Your task to perform on an android device: When is my next appointment? Image 0: 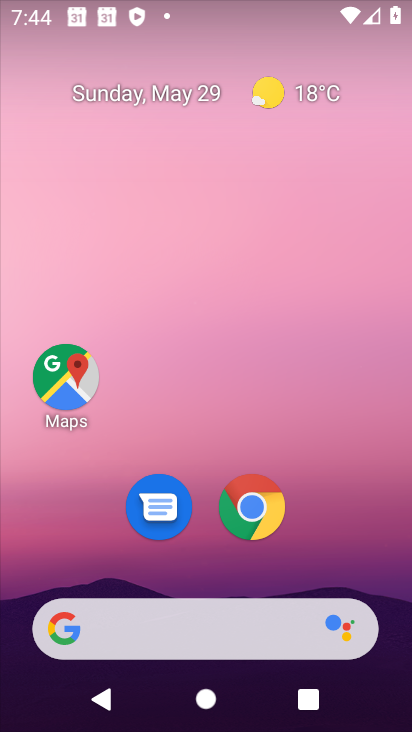
Step 0: drag from (320, 515) to (228, 180)
Your task to perform on an android device: When is my next appointment? Image 1: 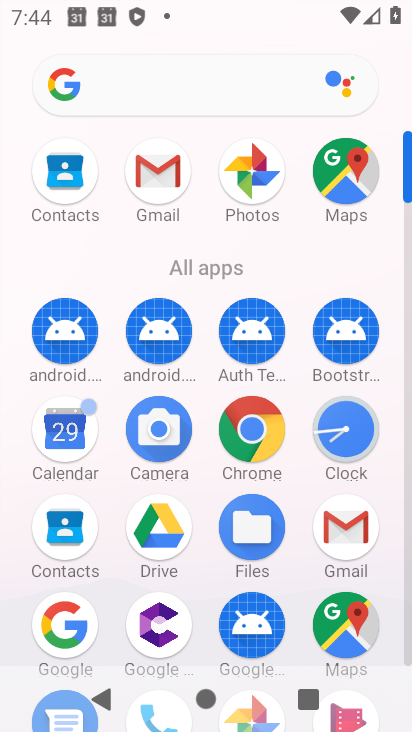
Step 1: click (56, 424)
Your task to perform on an android device: When is my next appointment? Image 2: 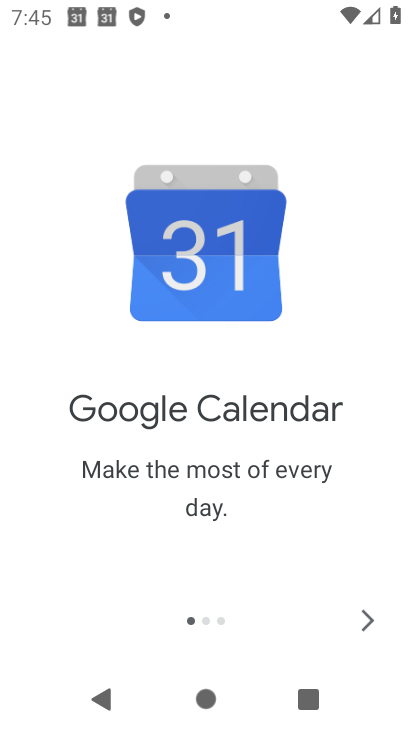
Step 2: click (365, 609)
Your task to perform on an android device: When is my next appointment? Image 3: 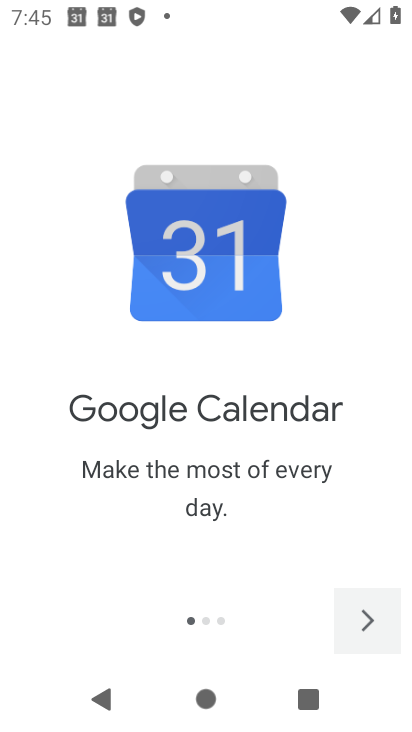
Step 3: click (365, 609)
Your task to perform on an android device: When is my next appointment? Image 4: 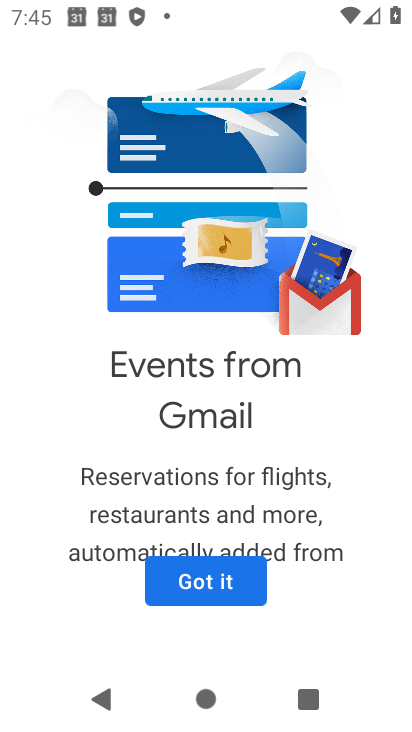
Step 4: click (228, 576)
Your task to perform on an android device: When is my next appointment? Image 5: 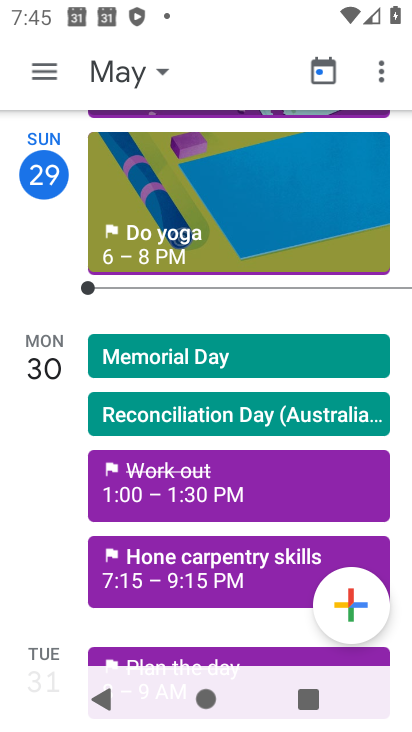
Step 5: click (32, 71)
Your task to perform on an android device: When is my next appointment? Image 6: 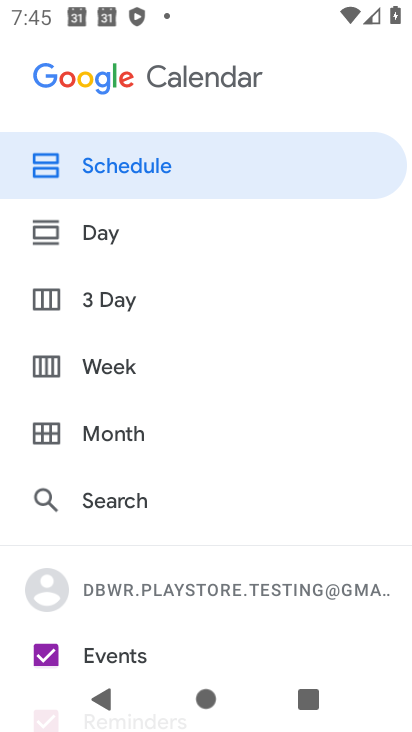
Step 6: click (155, 165)
Your task to perform on an android device: When is my next appointment? Image 7: 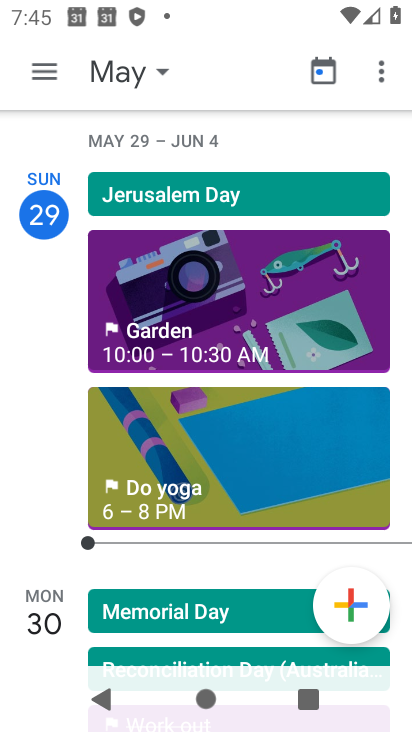
Step 7: task complete